Your task to perform on an android device: install app "Walmart Shopping & Grocery" Image 0: 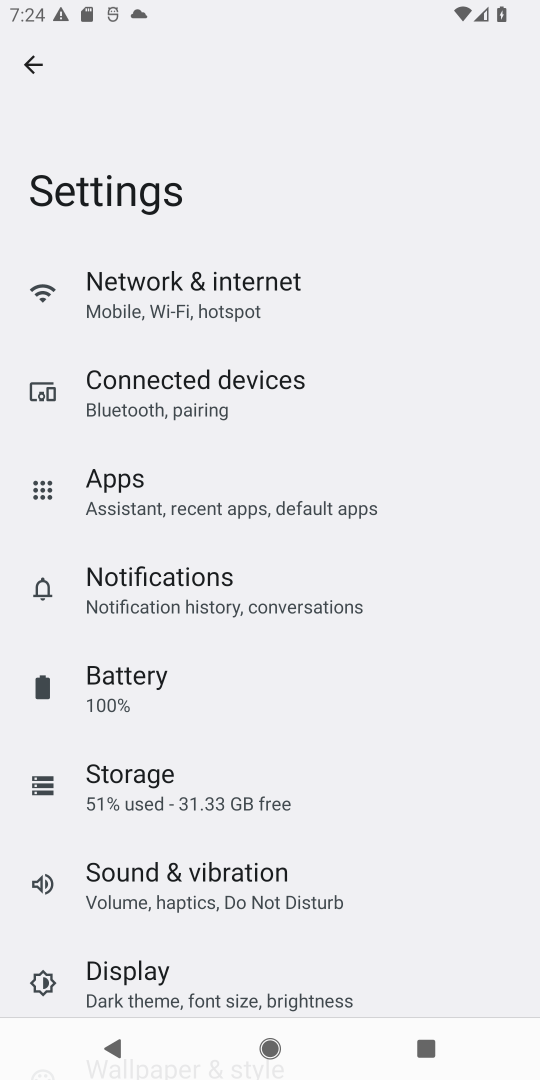
Step 0: press home button
Your task to perform on an android device: install app "Walmart Shopping & Grocery" Image 1: 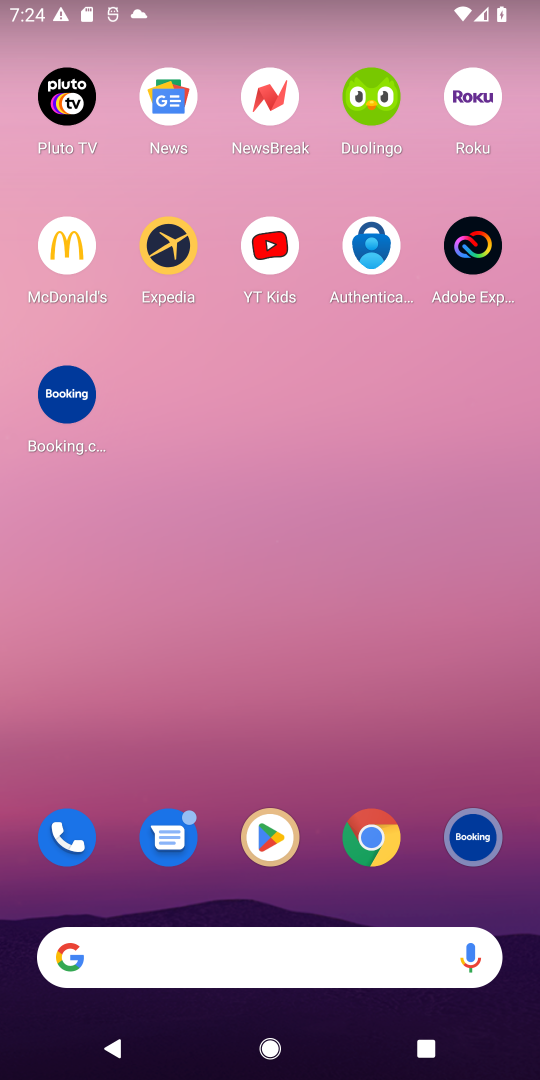
Step 1: click (269, 826)
Your task to perform on an android device: install app "Walmart Shopping & Grocery" Image 2: 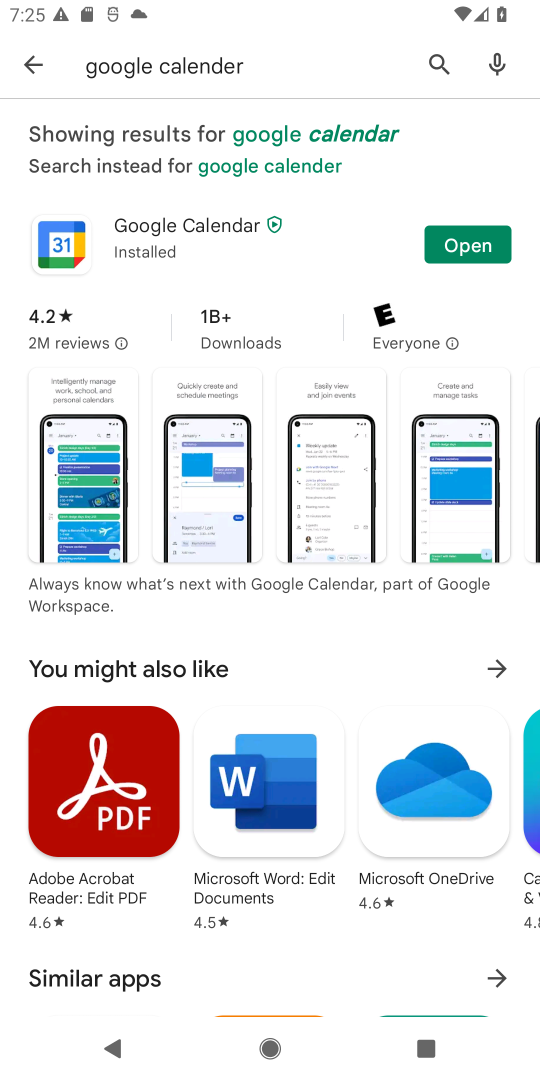
Step 2: click (262, 69)
Your task to perform on an android device: install app "Walmart Shopping & Grocery" Image 3: 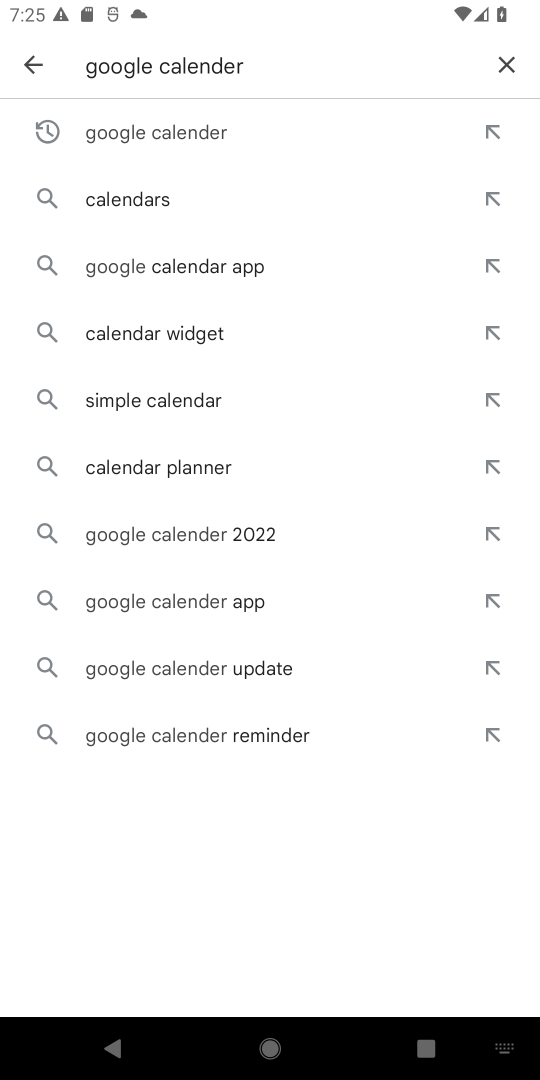
Step 3: click (494, 51)
Your task to perform on an android device: install app "Walmart Shopping & Grocery" Image 4: 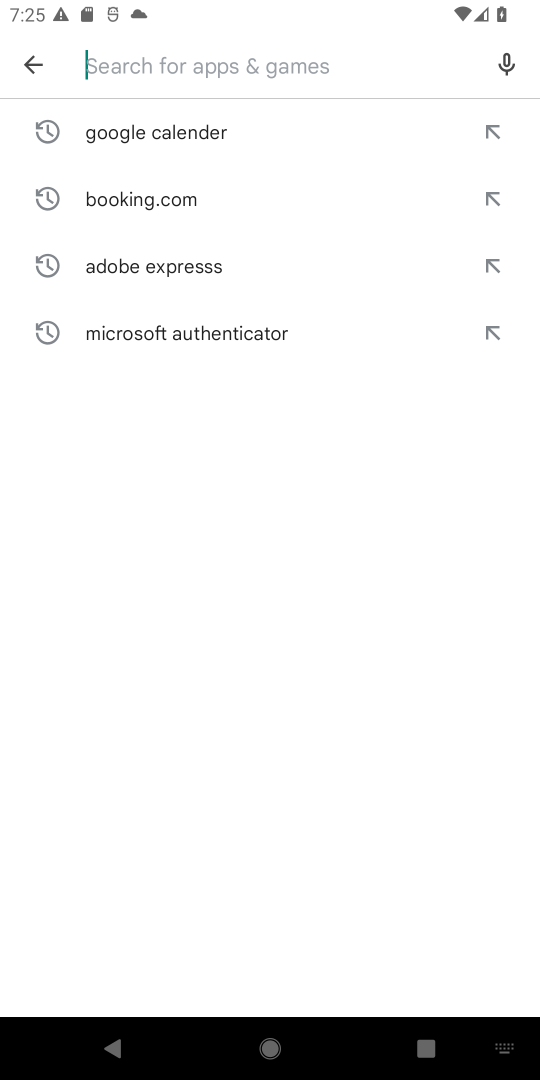
Step 4: type "Walmart "
Your task to perform on an android device: install app "Walmart Shopping & Grocery" Image 5: 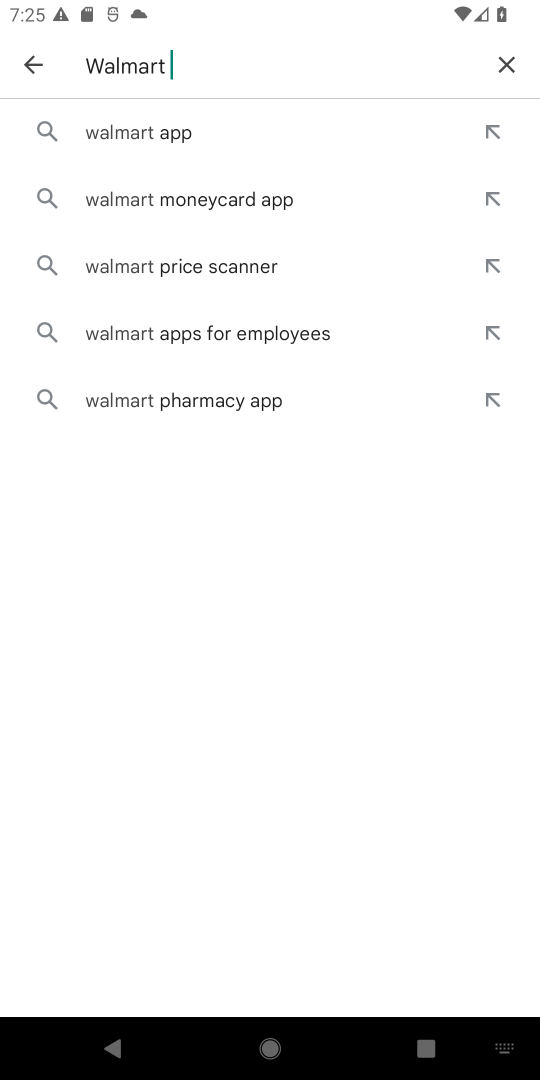
Step 5: click (169, 147)
Your task to perform on an android device: install app "Walmart Shopping & Grocery" Image 6: 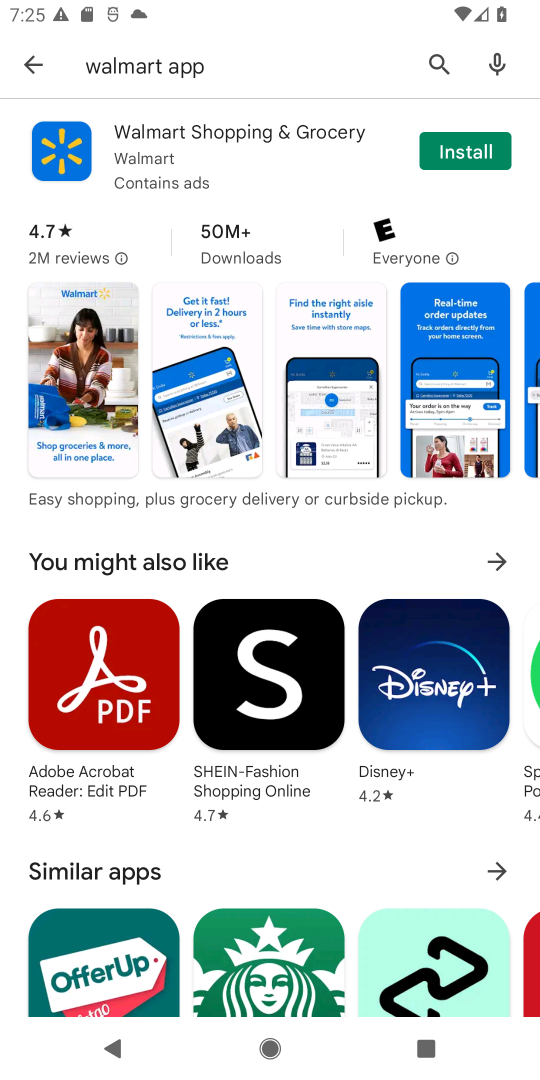
Step 6: click (476, 151)
Your task to perform on an android device: install app "Walmart Shopping & Grocery" Image 7: 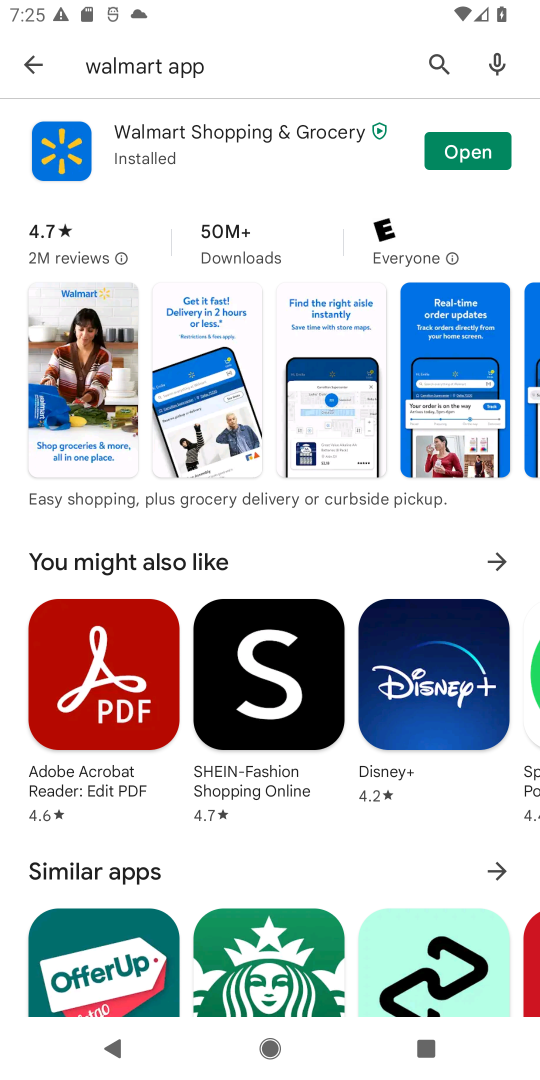
Step 7: task complete